Your task to perform on an android device: Open Google Image 0: 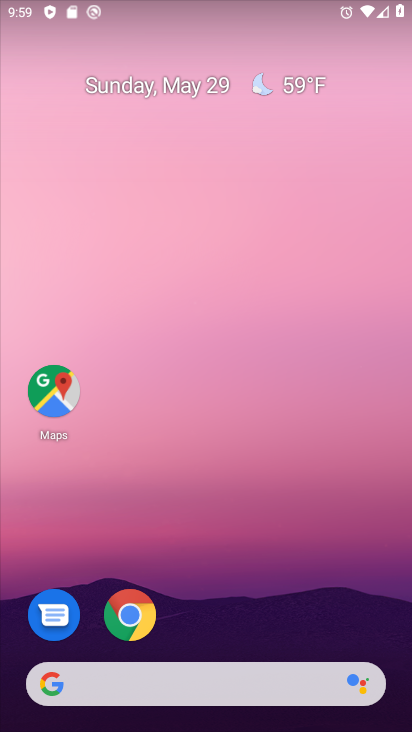
Step 0: drag from (218, 599) to (304, 75)
Your task to perform on an android device: Open Google Image 1: 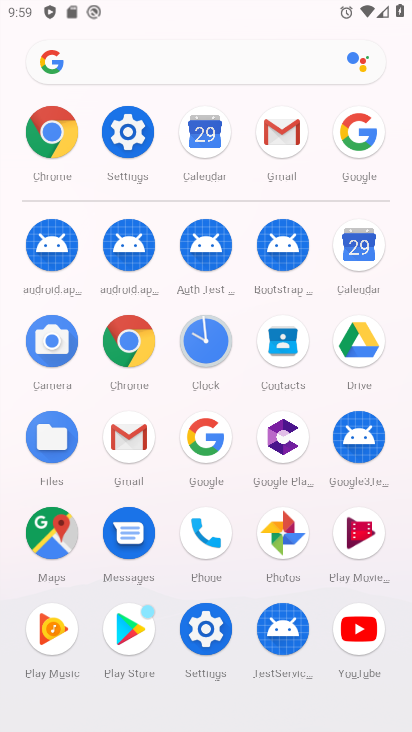
Step 1: click (212, 430)
Your task to perform on an android device: Open Google Image 2: 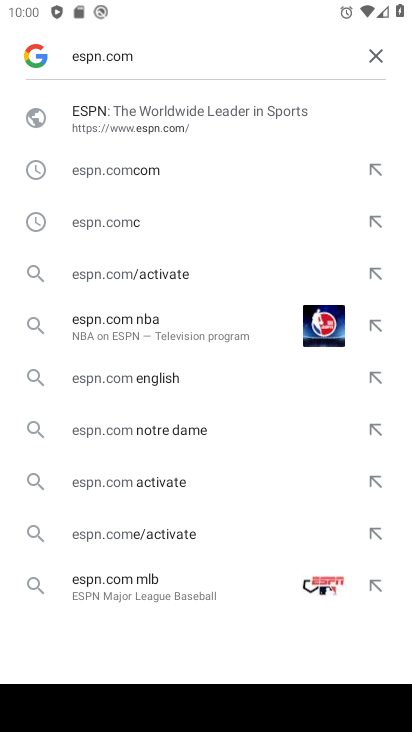
Step 2: task complete